Your task to perform on an android device: Check the news Image 0: 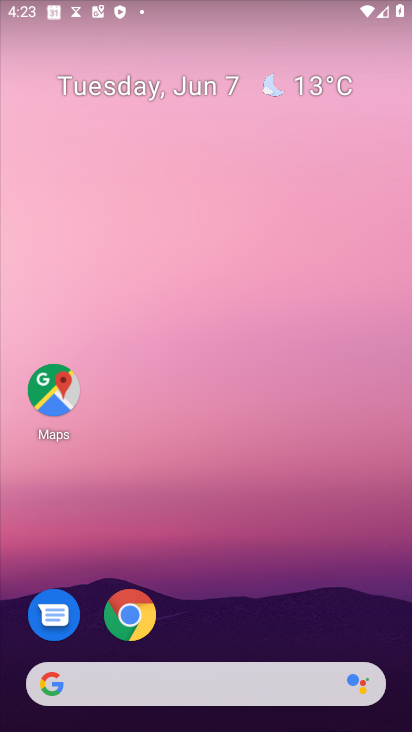
Step 0: drag from (262, 556) to (213, 151)
Your task to perform on an android device: Check the news Image 1: 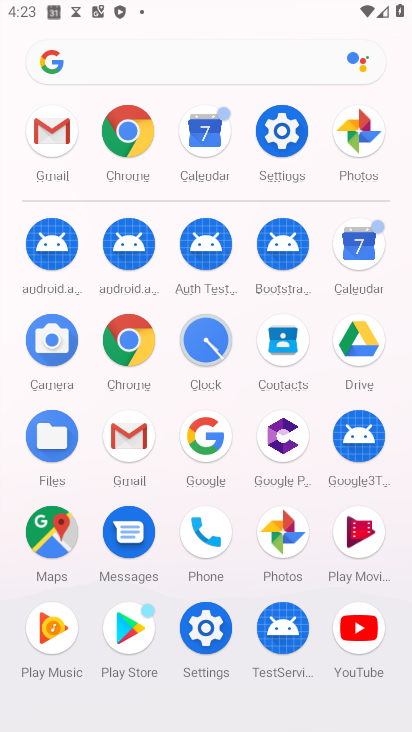
Step 1: press back button
Your task to perform on an android device: Check the news Image 2: 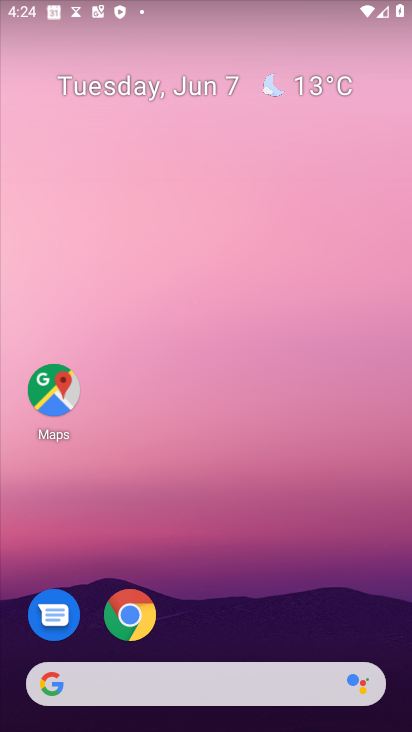
Step 2: drag from (23, 273) to (347, 542)
Your task to perform on an android device: Check the news Image 3: 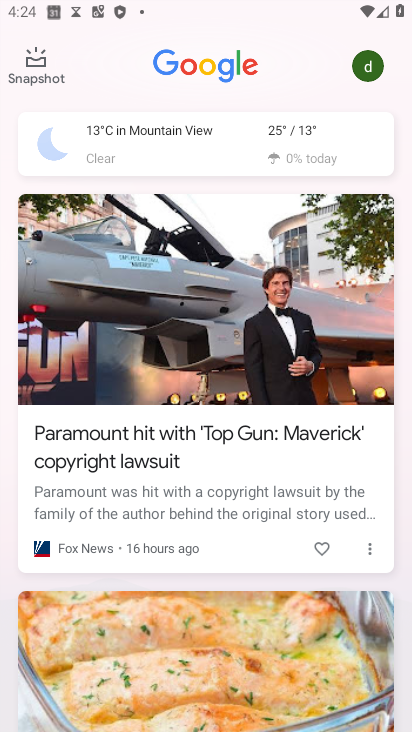
Step 3: drag from (159, 553) to (116, 144)
Your task to perform on an android device: Check the news Image 4: 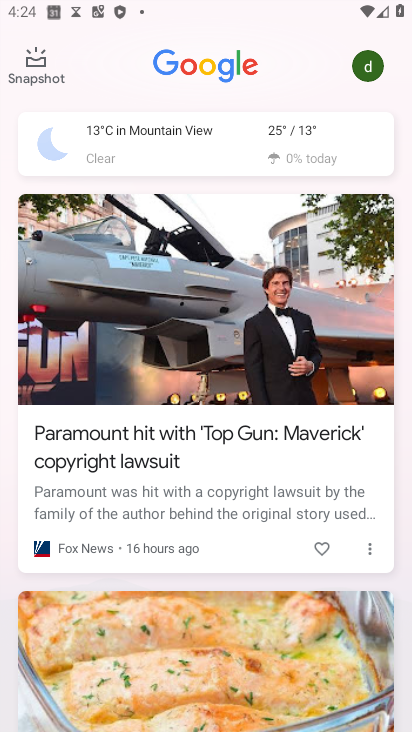
Step 4: drag from (185, 534) to (159, 152)
Your task to perform on an android device: Check the news Image 5: 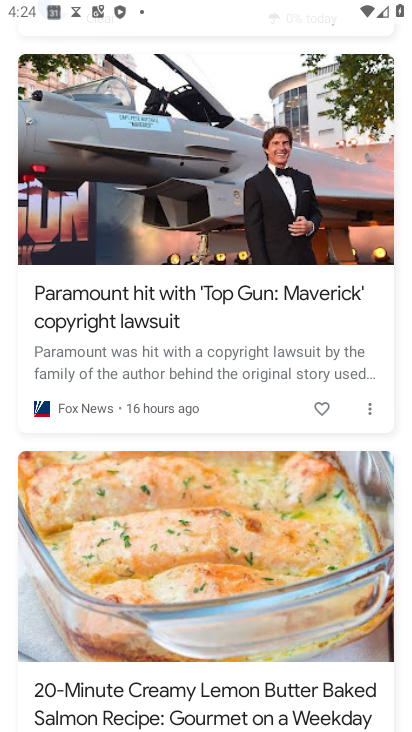
Step 5: drag from (191, 613) to (169, 145)
Your task to perform on an android device: Check the news Image 6: 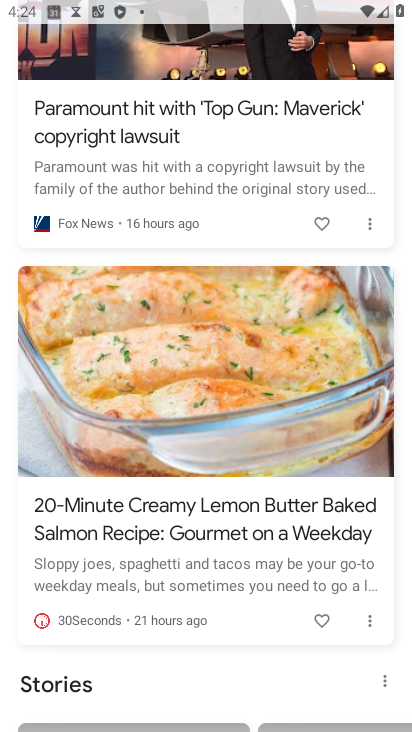
Step 6: drag from (236, 572) to (228, 266)
Your task to perform on an android device: Check the news Image 7: 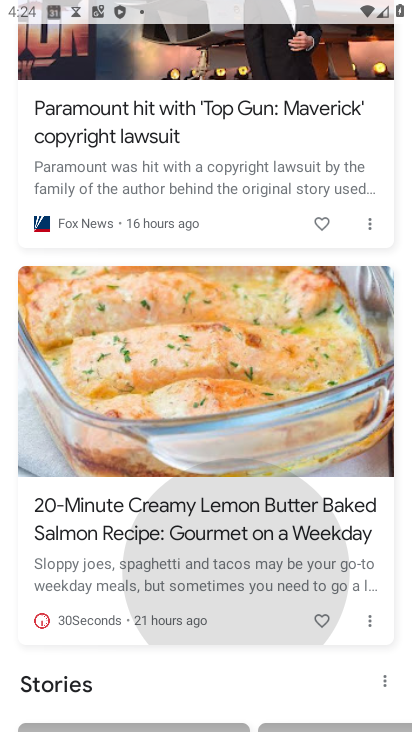
Step 7: drag from (197, 387) to (177, 159)
Your task to perform on an android device: Check the news Image 8: 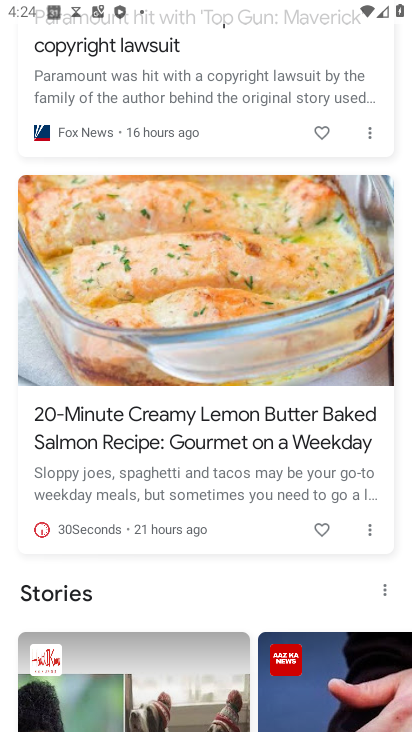
Step 8: drag from (183, 329) to (263, 663)
Your task to perform on an android device: Check the news Image 9: 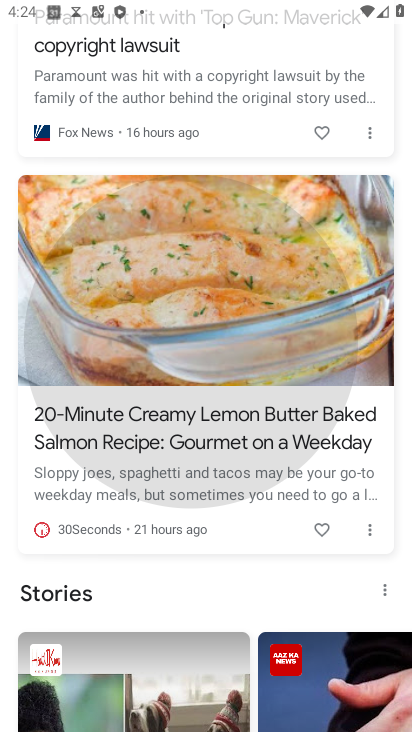
Step 9: drag from (183, 428) to (214, 617)
Your task to perform on an android device: Check the news Image 10: 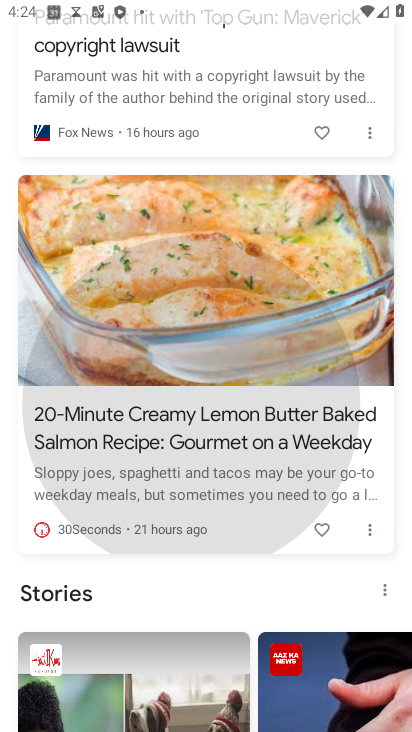
Step 10: drag from (164, 354) to (204, 640)
Your task to perform on an android device: Check the news Image 11: 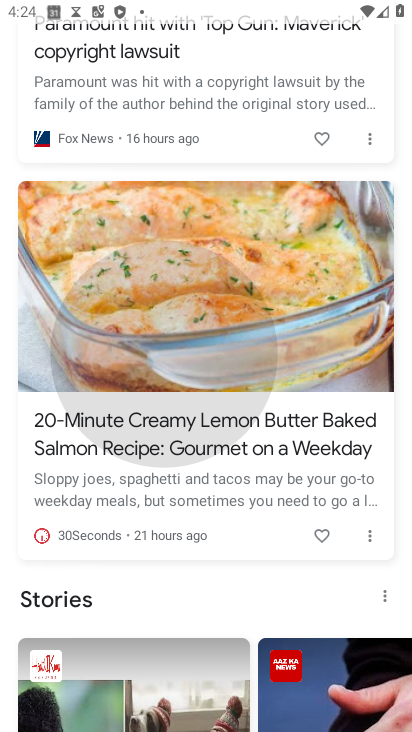
Step 11: drag from (138, 343) to (205, 627)
Your task to perform on an android device: Check the news Image 12: 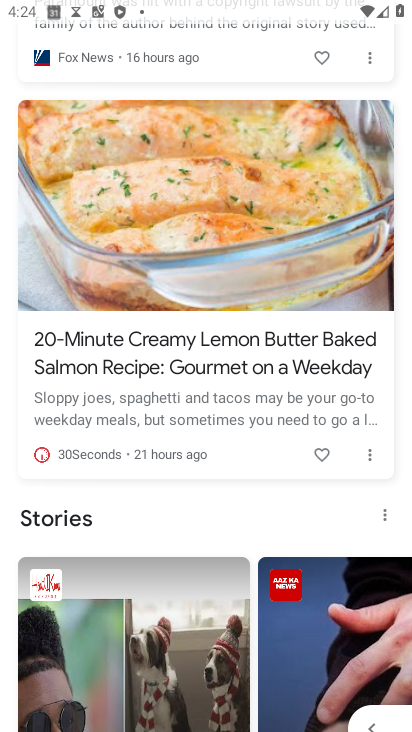
Step 12: drag from (159, 311) to (215, 567)
Your task to perform on an android device: Check the news Image 13: 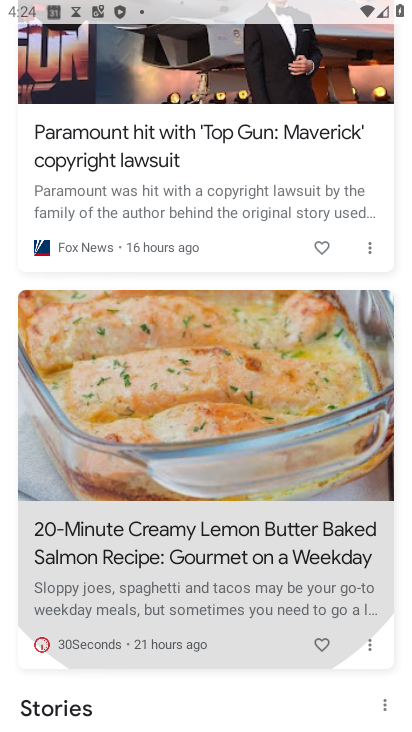
Step 13: drag from (162, 301) to (192, 521)
Your task to perform on an android device: Check the news Image 14: 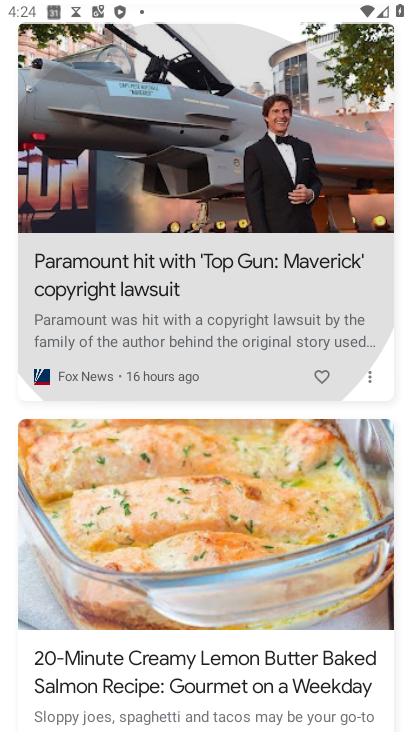
Step 14: click (174, 484)
Your task to perform on an android device: Check the news Image 15: 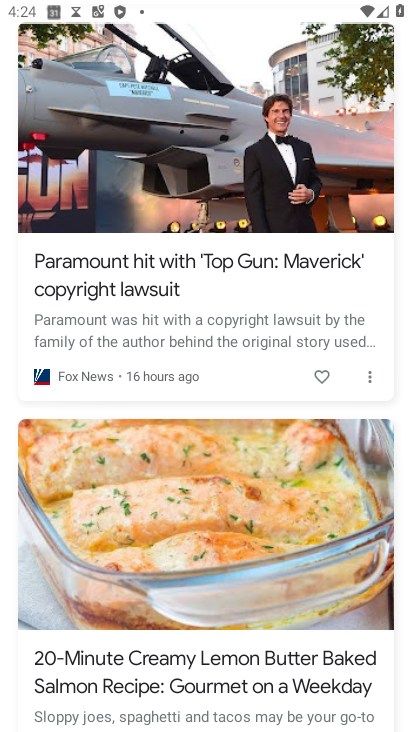
Step 15: drag from (150, 313) to (180, 602)
Your task to perform on an android device: Check the news Image 16: 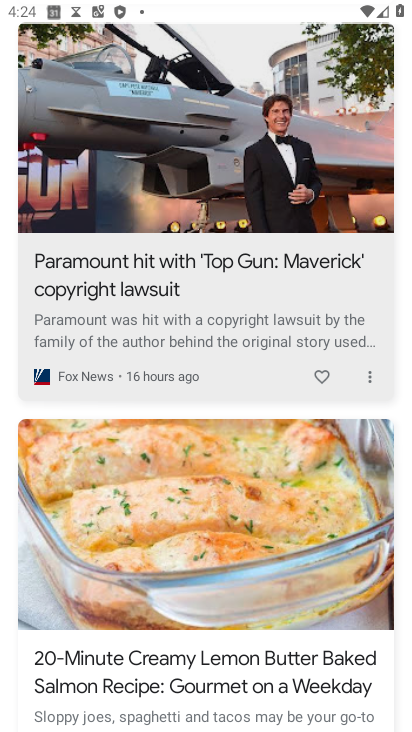
Step 16: click (169, 469)
Your task to perform on an android device: Check the news Image 17: 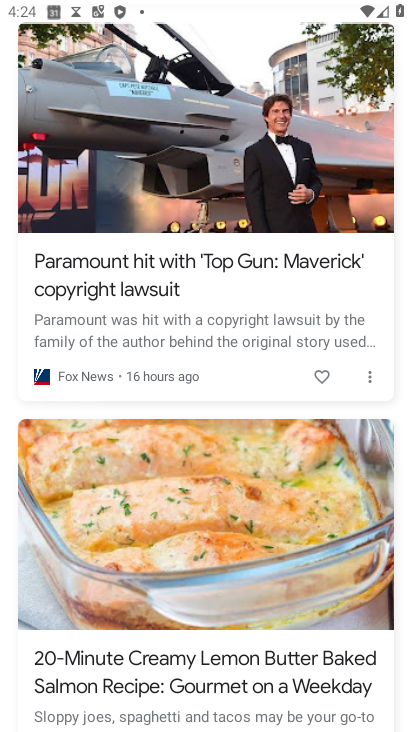
Step 17: task complete